Your task to perform on an android device: What's the weather? Image 0: 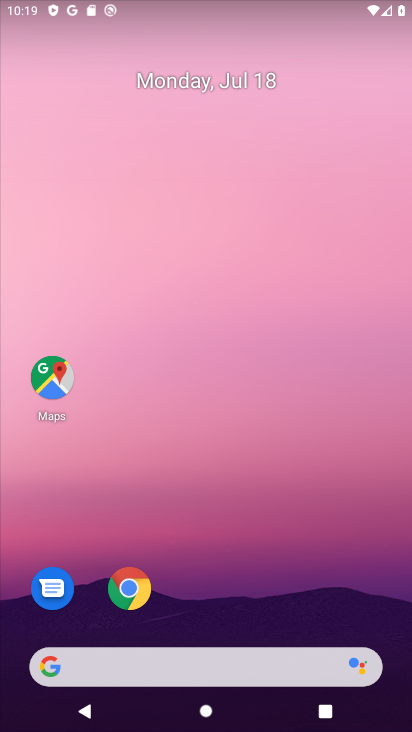
Step 0: press home button
Your task to perform on an android device: What's the weather? Image 1: 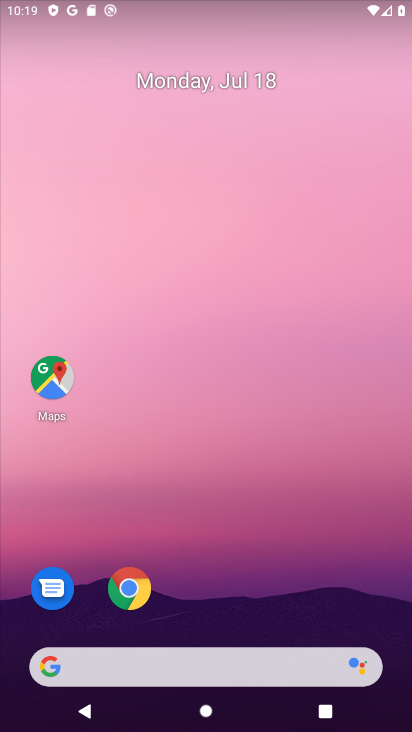
Step 1: click (123, 577)
Your task to perform on an android device: What's the weather? Image 2: 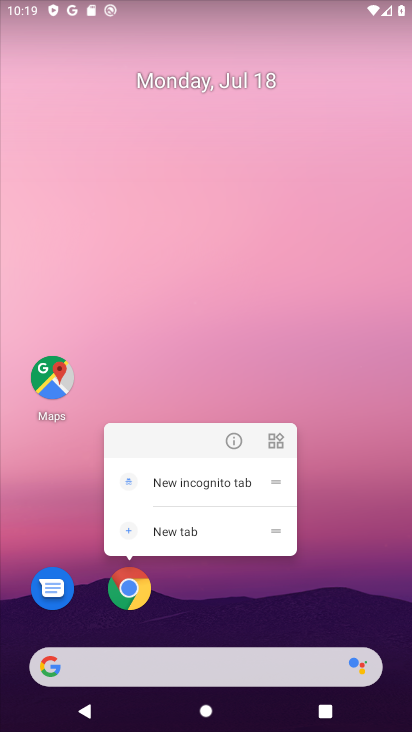
Step 2: click (140, 578)
Your task to perform on an android device: What's the weather? Image 3: 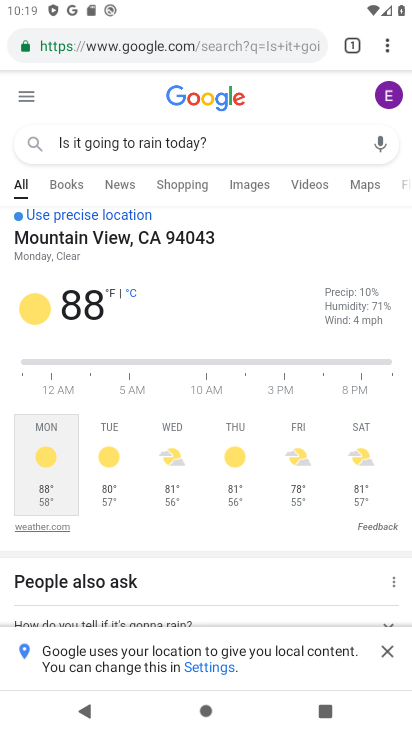
Step 3: click (226, 47)
Your task to perform on an android device: What's the weather? Image 4: 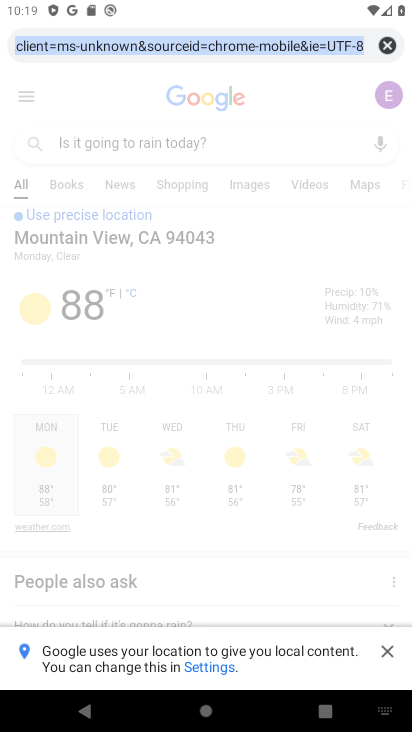
Step 4: type "What's the weather?"
Your task to perform on an android device: What's the weather? Image 5: 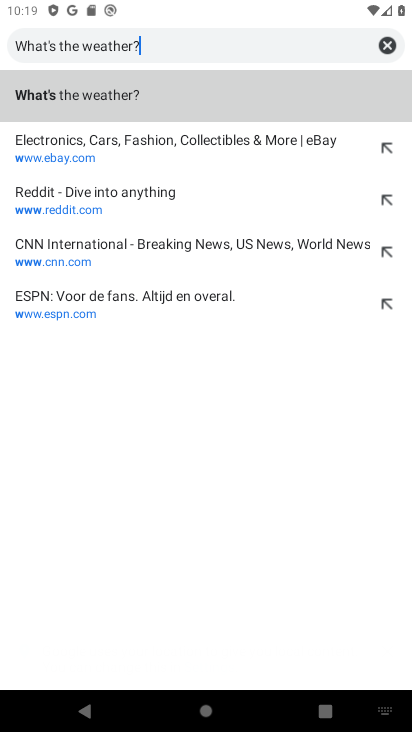
Step 5: type ""
Your task to perform on an android device: What's the weather? Image 6: 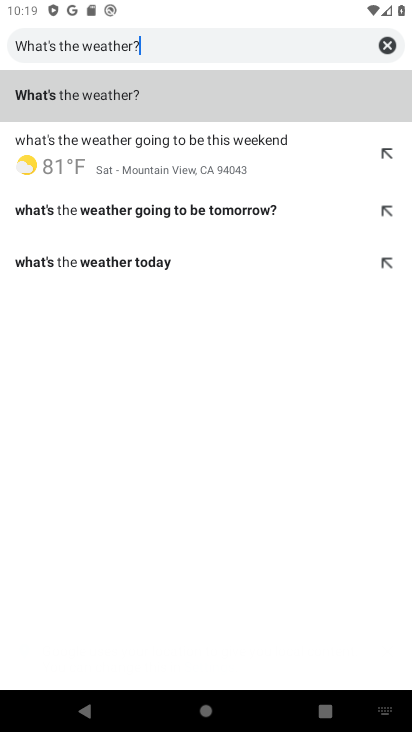
Step 6: click (172, 83)
Your task to perform on an android device: What's the weather? Image 7: 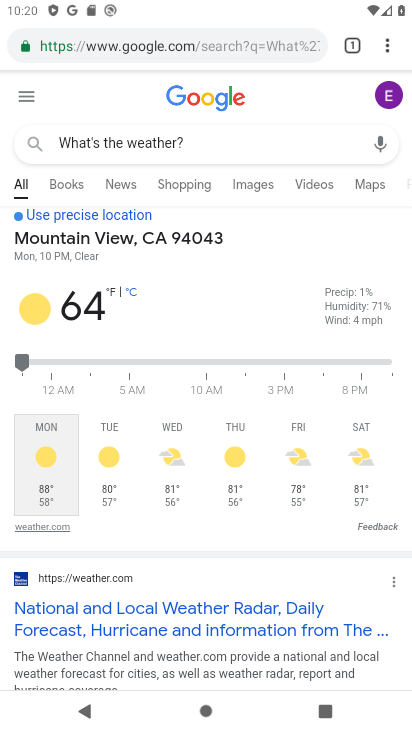
Step 7: task complete